Your task to perform on an android device: Open the phone app and click the voicemail tab. Image 0: 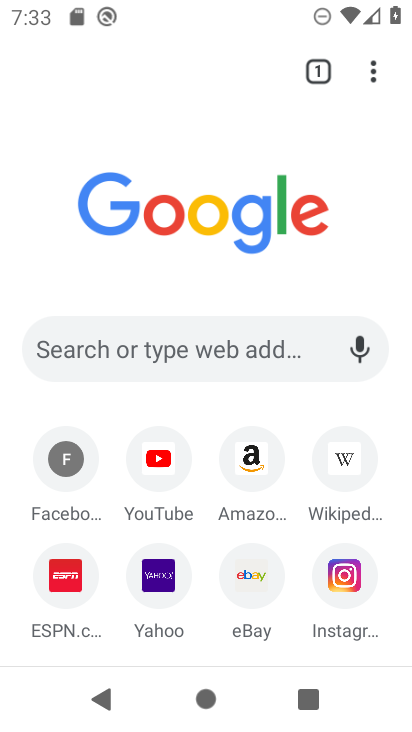
Step 0: press home button
Your task to perform on an android device: Open the phone app and click the voicemail tab. Image 1: 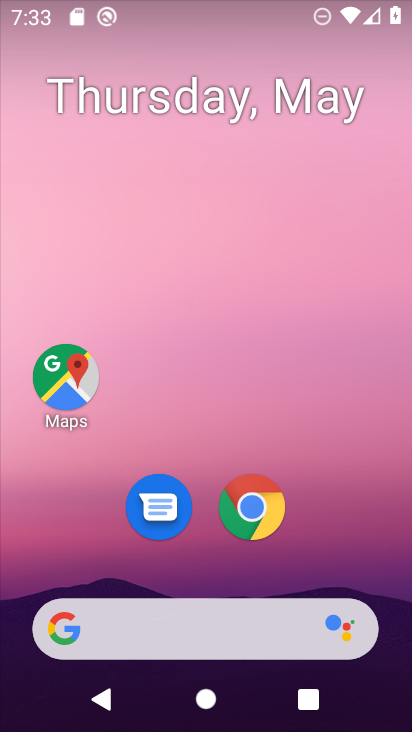
Step 1: drag from (349, 454) to (338, 25)
Your task to perform on an android device: Open the phone app and click the voicemail tab. Image 2: 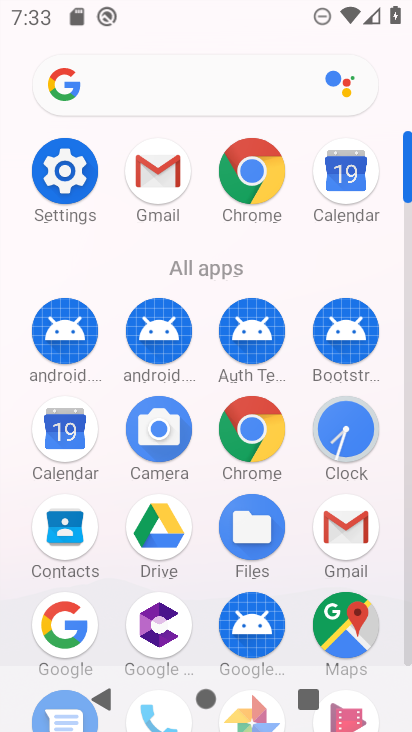
Step 2: drag from (394, 625) to (356, 206)
Your task to perform on an android device: Open the phone app and click the voicemail tab. Image 3: 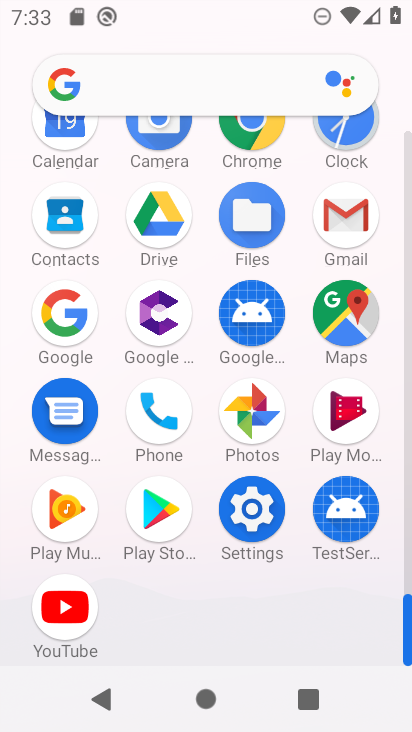
Step 3: click (148, 437)
Your task to perform on an android device: Open the phone app and click the voicemail tab. Image 4: 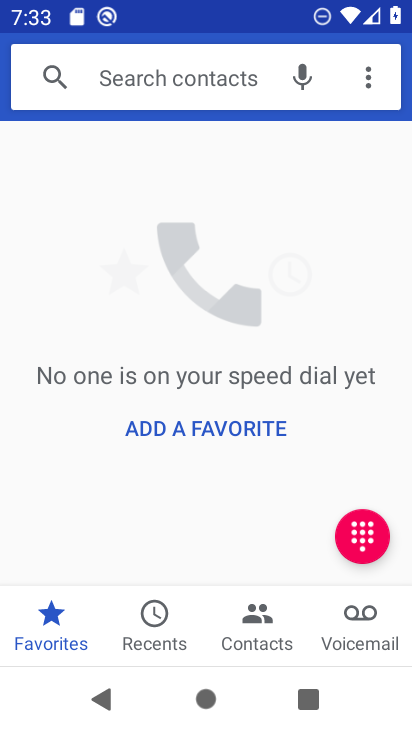
Step 4: click (374, 643)
Your task to perform on an android device: Open the phone app and click the voicemail tab. Image 5: 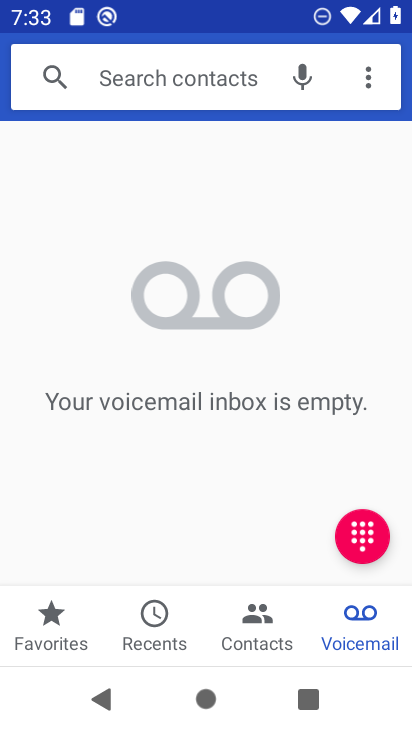
Step 5: task complete